Your task to perform on an android device: Open Google Maps Image 0: 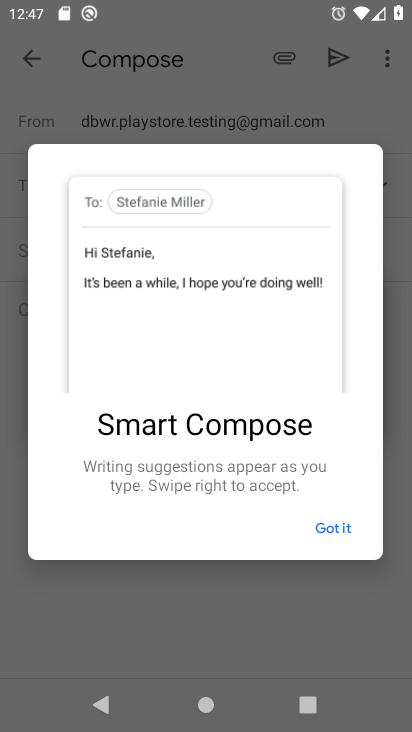
Step 0: press home button
Your task to perform on an android device: Open Google Maps Image 1: 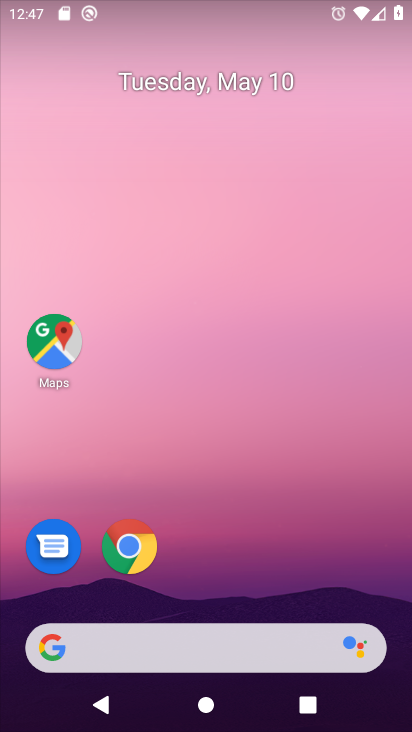
Step 1: click (62, 363)
Your task to perform on an android device: Open Google Maps Image 2: 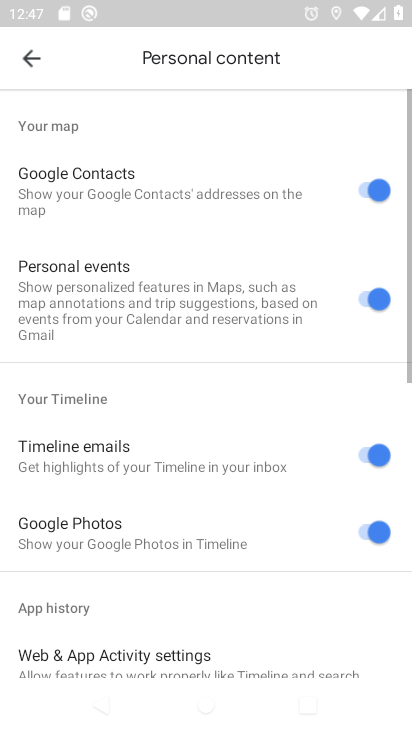
Step 2: task complete